Your task to perform on an android device: Search for vegetarian restaurants on Maps Image 0: 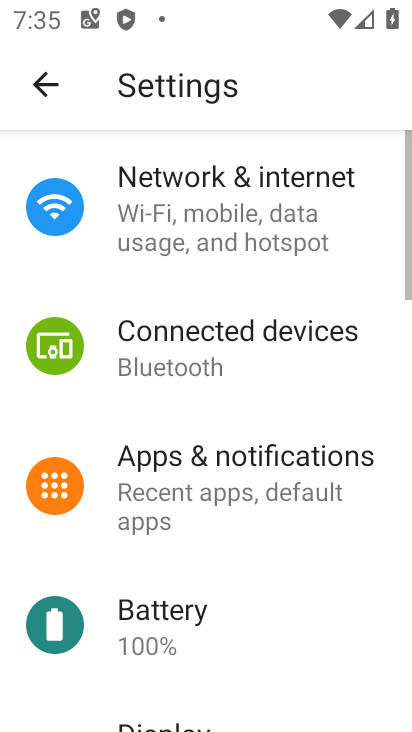
Step 0: press home button
Your task to perform on an android device: Search for vegetarian restaurants on Maps Image 1: 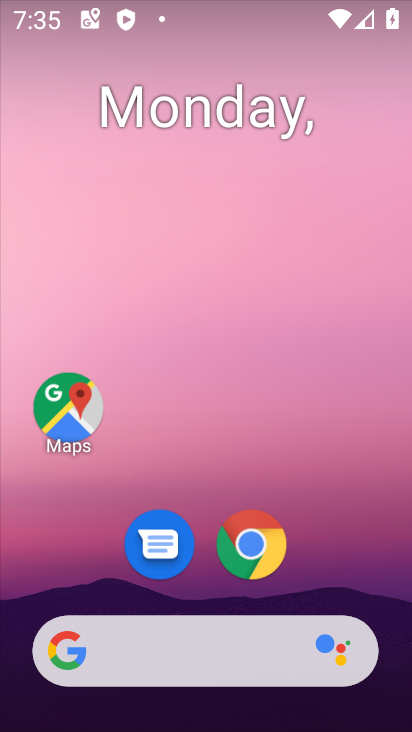
Step 1: click (66, 409)
Your task to perform on an android device: Search for vegetarian restaurants on Maps Image 2: 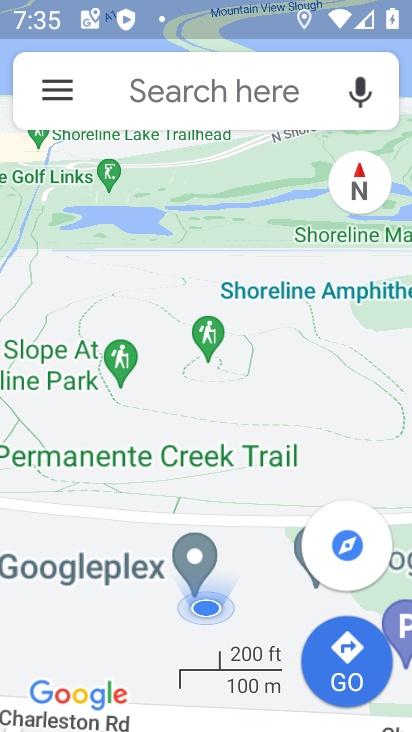
Step 2: click (159, 97)
Your task to perform on an android device: Search for vegetarian restaurants on Maps Image 3: 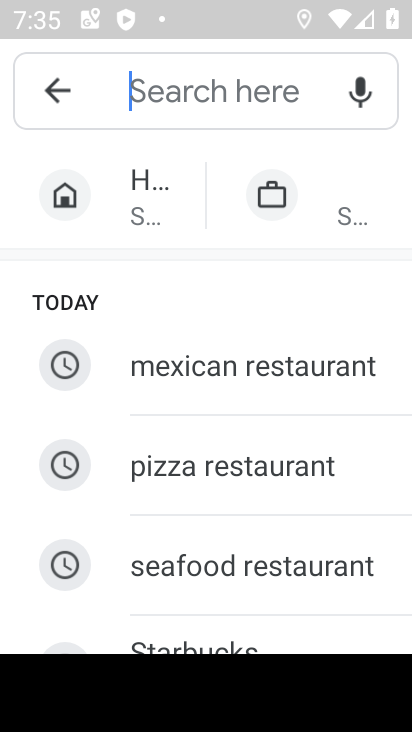
Step 3: type "vegetarian reastaurants"
Your task to perform on an android device: Search for vegetarian restaurants on Maps Image 4: 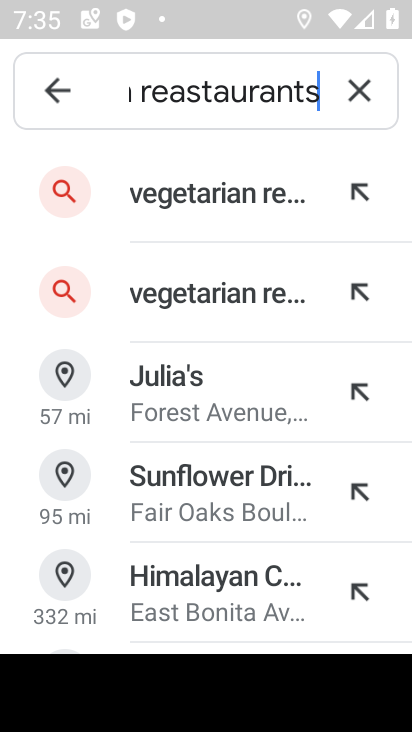
Step 4: click (228, 185)
Your task to perform on an android device: Search for vegetarian restaurants on Maps Image 5: 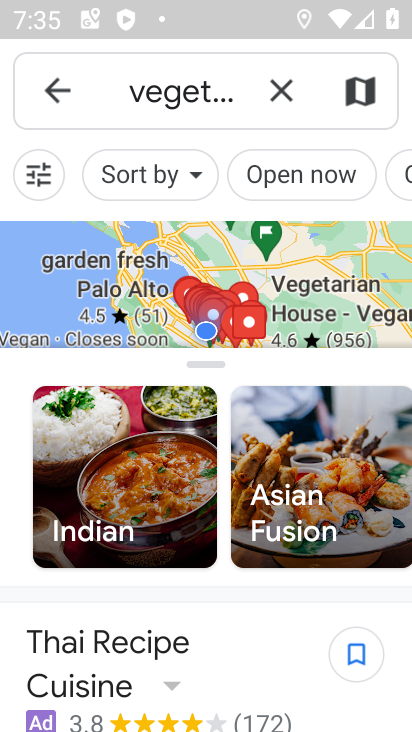
Step 5: task complete